Your task to perform on an android device: Open sound settings Image 0: 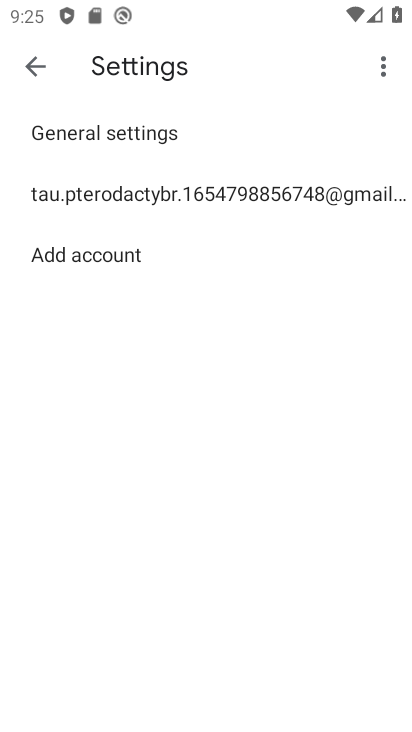
Step 0: press home button
Your task to perform on an android device: Open sound settings Image 1: 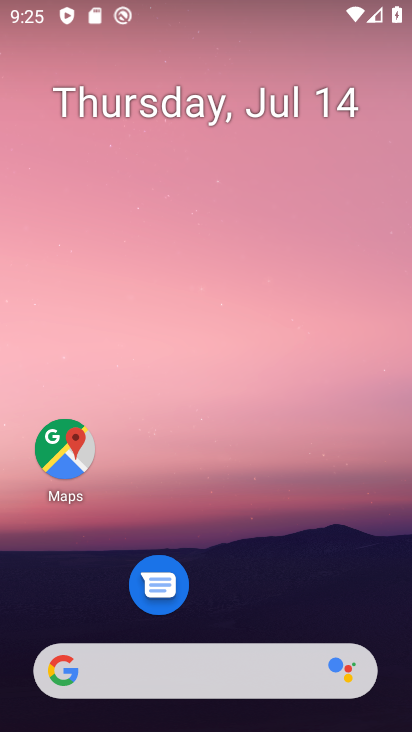
Step 1: drag from (208, 636) to (228, 0)
Your task to perform on an android device: Open sound settings Image 2: 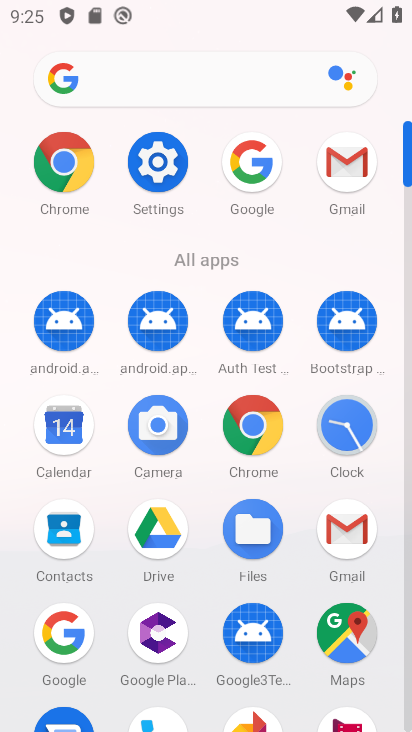
Step 2: click (157, 170)
Your task to perform on an android device: Open sound settings Image 3: 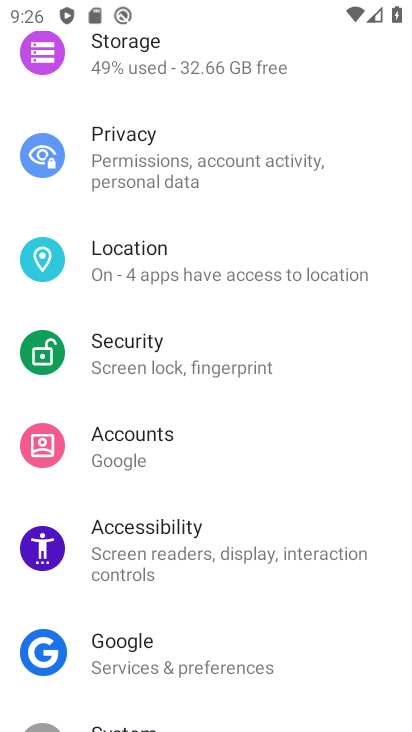
Step 3: drag from (157, 170) to (170, 613)
Your task to perform on an android device: Open sound settings Image 4: 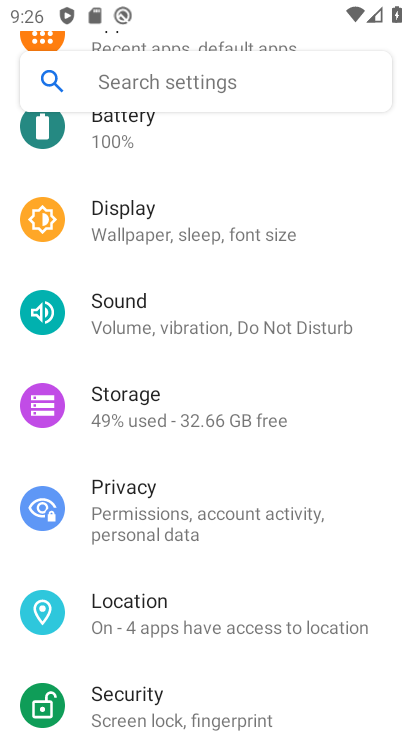
Step 4: click (203, 296)
Your task to perform on an android device: Open sound settings Image 5: 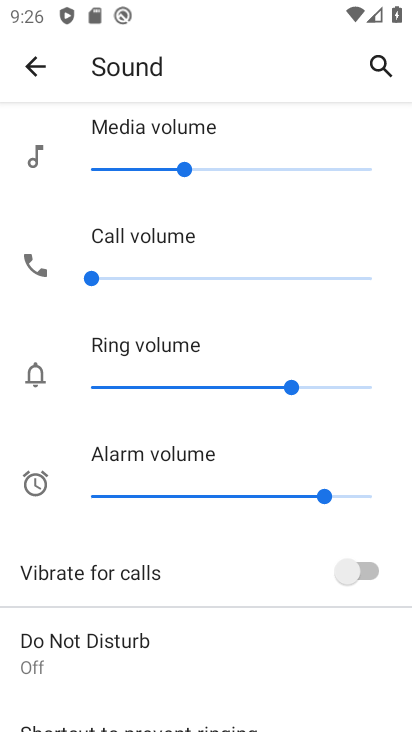
Step 5: task complete